Your task to perform on an android device: empty trash in the gmail app Image 0: 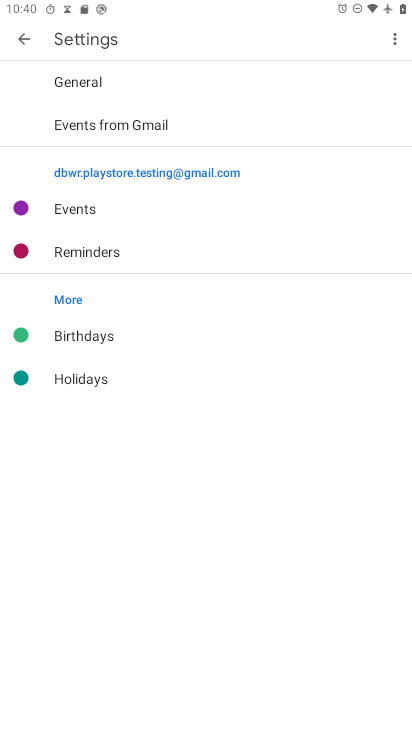
Step 0: press home button
Your task to perform on an android device: empty trash in the gmail app Image 1: 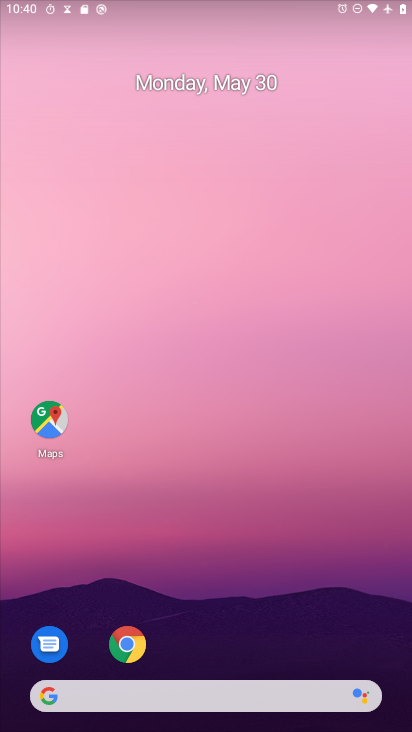
Step 1: drag from (239, 618) to (284, 0)
Your task to perform on an android device: empty trash in the gmail app Image 2: 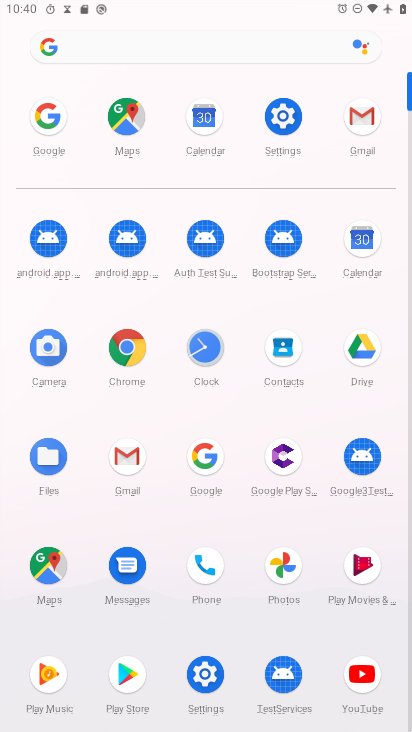
Step 2: click (359, 113)
Your task to perform on an android device: empty trash in the gmail app Image 3: 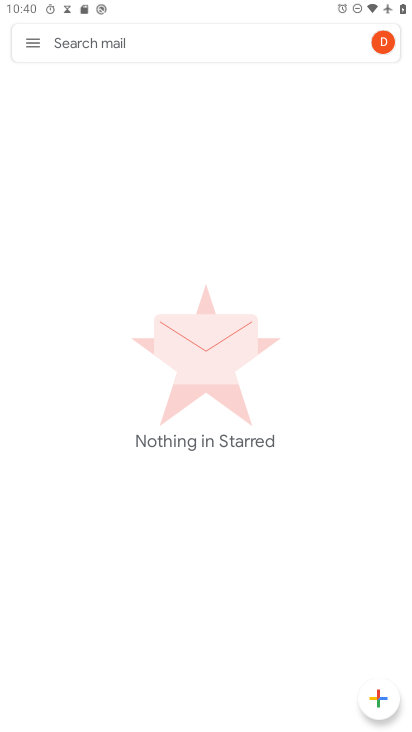
Step 3: click (31, 36)
Your task to perform on an android device: empty trash in the gmail app Image 4: 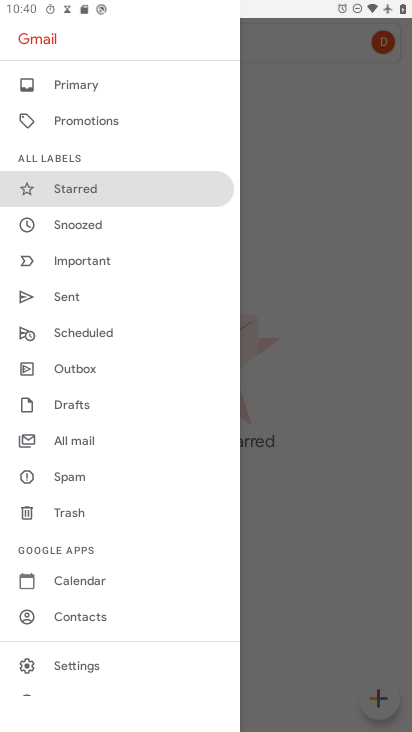
Step 4: click (76, 510)
Your task to perform on an android device: empty trash in the gmail app Image 5: 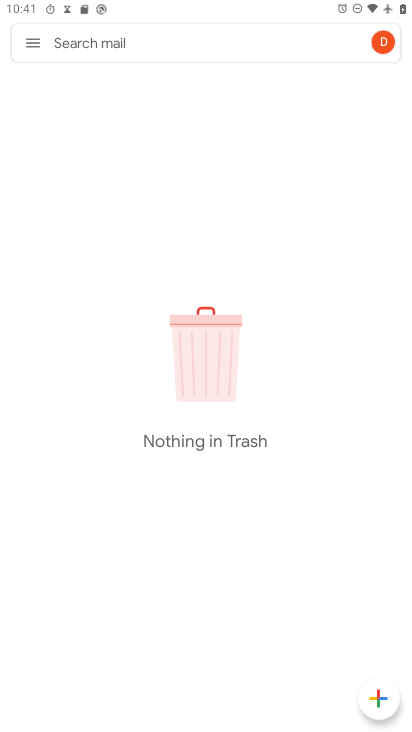
Step 5: task complete